Your task to perform on an android device: change the clock display to digital Image 0: 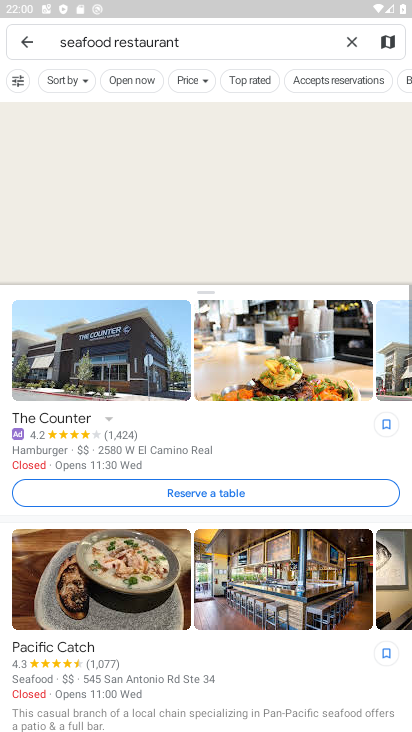
Step 0: press home button
Your task to perform on an android device: change the clock display to digital Image 1: 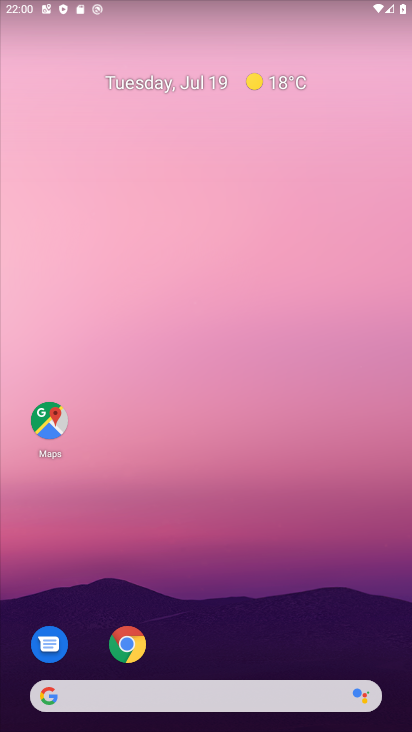
Step 1: drag from (224, 712) to (197, 312)
Your task to perform on an android device: change the clock display to digital Image 2: 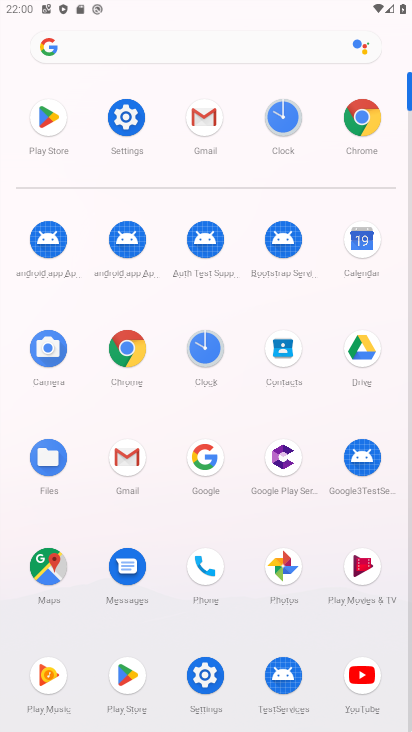
Step 2: click (199, 349)
Your task to perform on an android device: change the clock display to digital Image 3: 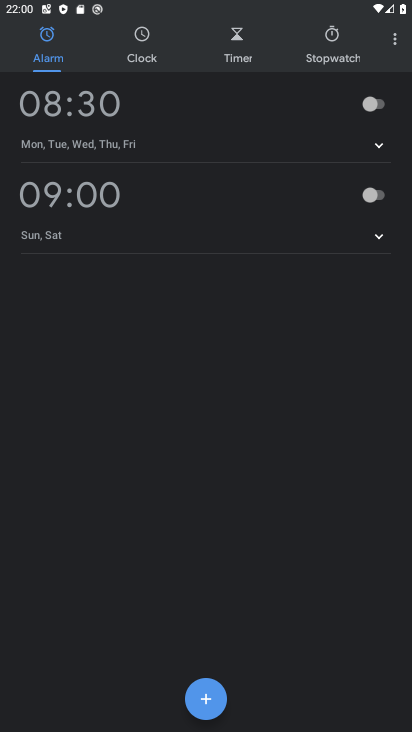
Step 3: click (397, 44)
Your task to perform on an android device: change the clock display to digital Image 4: 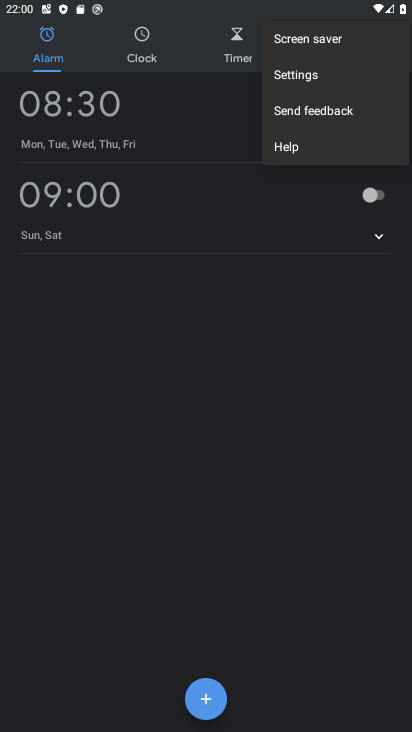
Step 4: click (302, 75)
Your task to perform on an android device: change the clock display to digital Image 5: 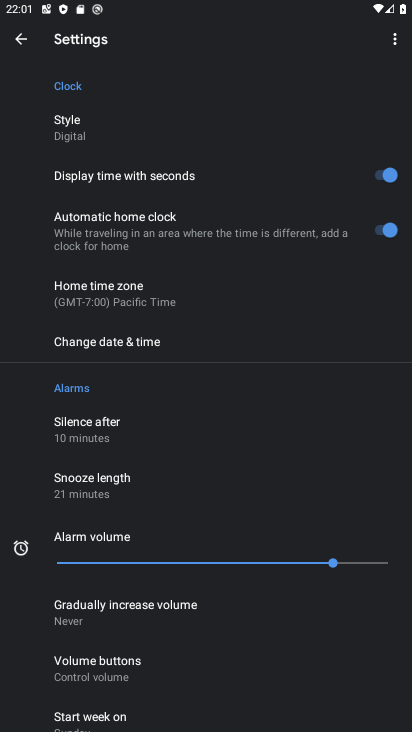
Step 5: task complete